Your task to perform on an android device: Open maps Image 0: 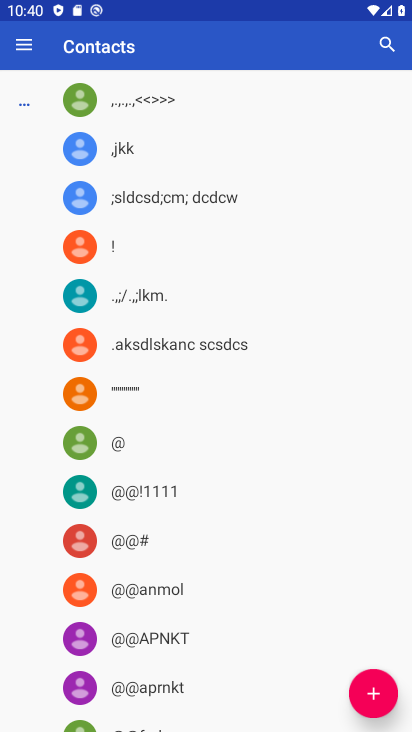
Step 0: press home button
Your task to perform on an android device: Open maps Image 1: 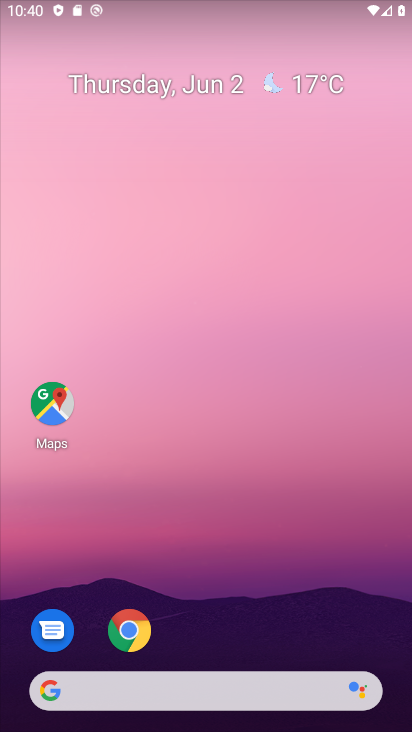
Step 1: click (44, 419)
Your task to perform on an android device: Open maps Image 2: 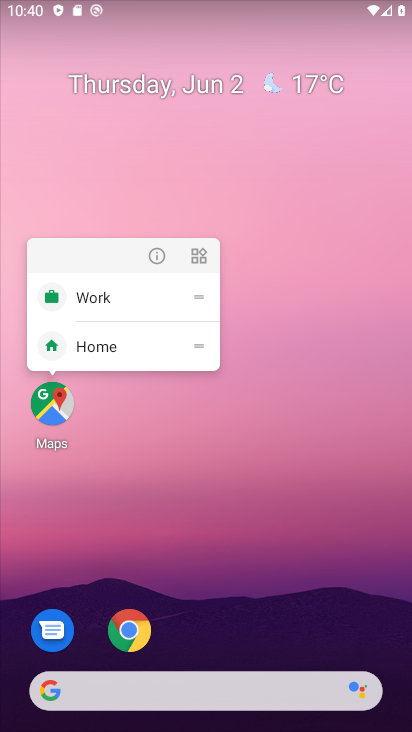
Step 2: click (68, 427)
Your task to perform on an android device: Open maps Image 3: 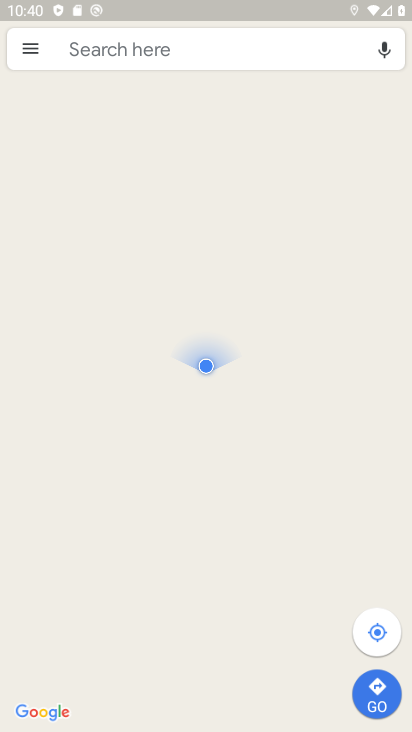
Step 3: task complete